Your task to perform on an android device: Search for sushi restaurants on Maps Image 0: 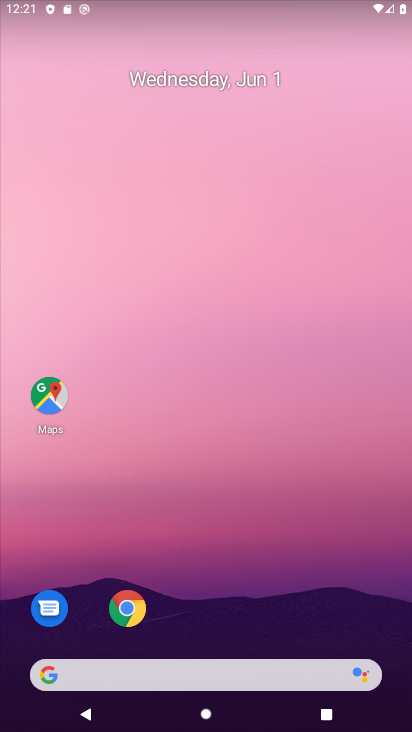
Step 0: click (55, 392)
Your task to perform on an android device: Search for sushi restaurants on Maps Image 1: 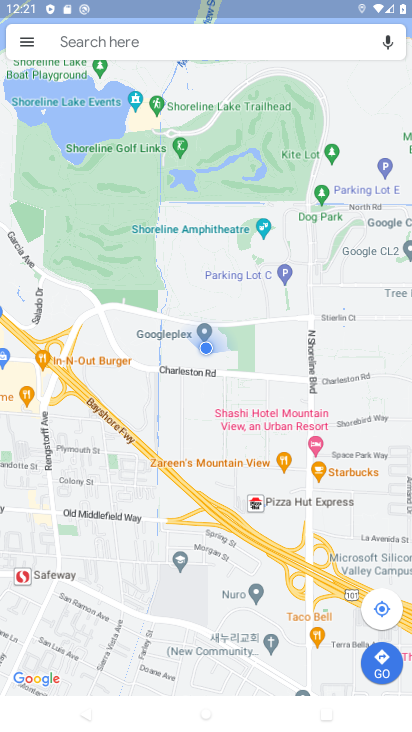
Step 1: click (296, 27)
Your task to perform on an android device: Search for sushi restaurants on Maps Image 2: 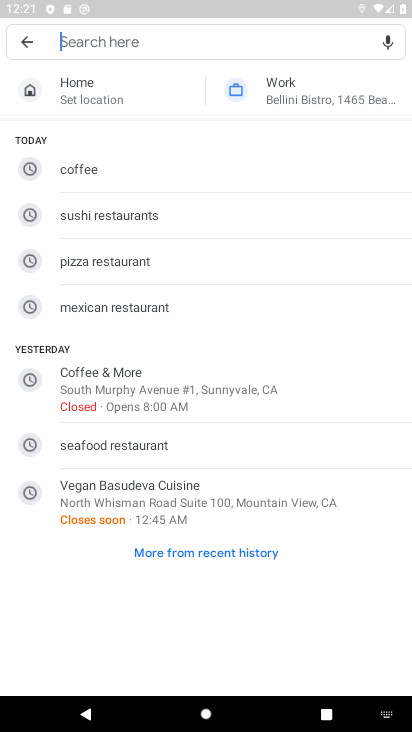
Step 2: click (131, 214)
Your task to perform on an android device: Search for sushi restaurants on Maps Image 3: 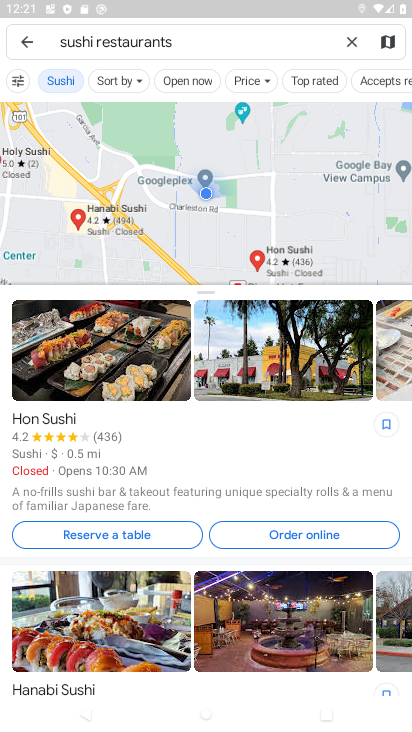
Step 3: task complete